Your task to perform on an android device: Search for vegetarian restaurants on Maps Image 0: 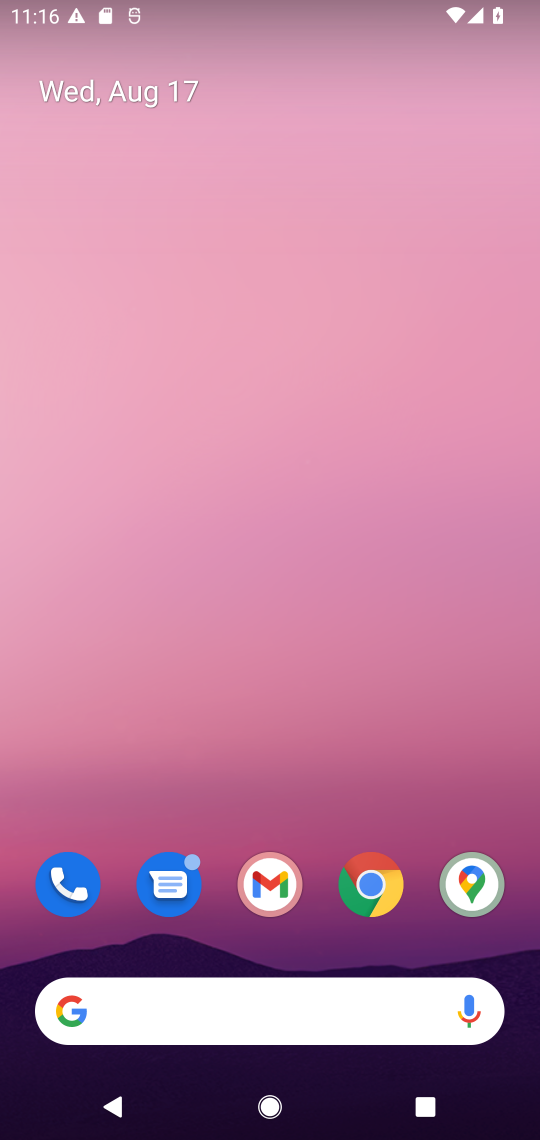
Step 0: press home button
Your task to perform on an android device: Search for vegetarian restaurants on Maps Image 1: 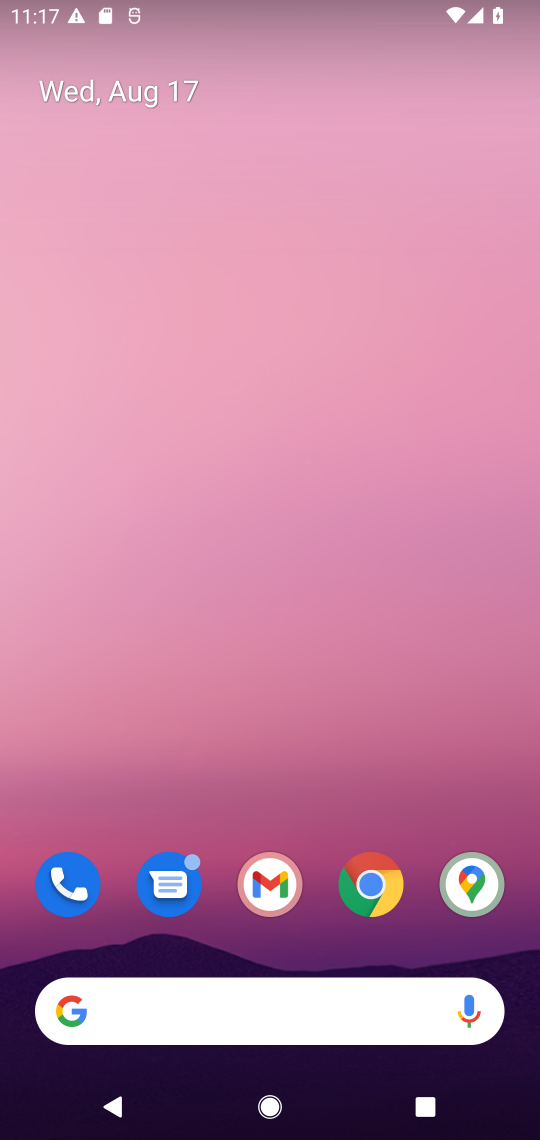
Step 1: click (486, 894)
Your task to perform on an android device: Search for vegetarian restaurants on Maps Image 2: 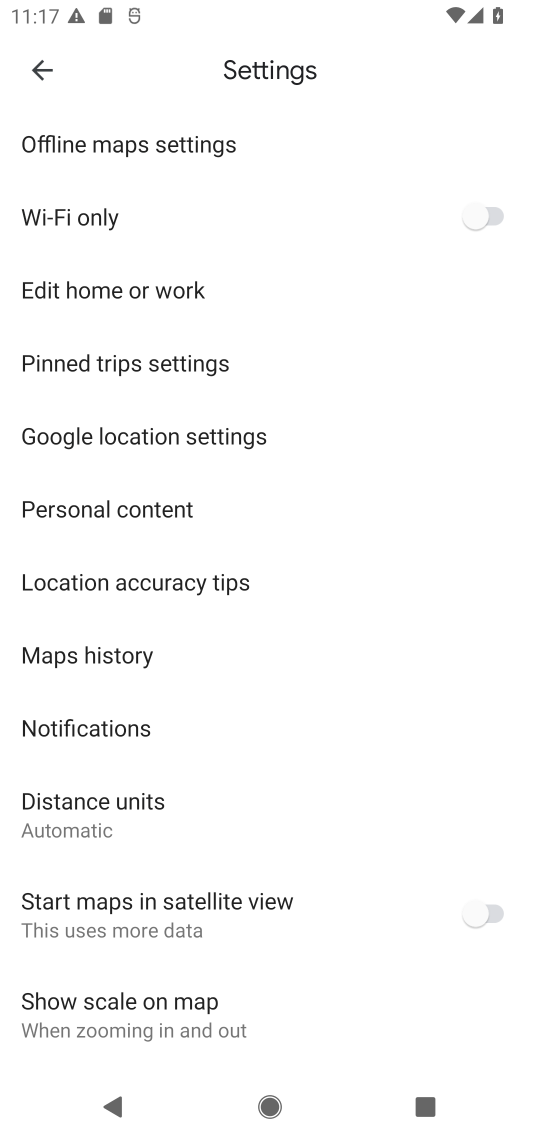
Step 2: press back button
Your task to perform on an android device: Search for vegetarian restaurants on Maps Image 3: 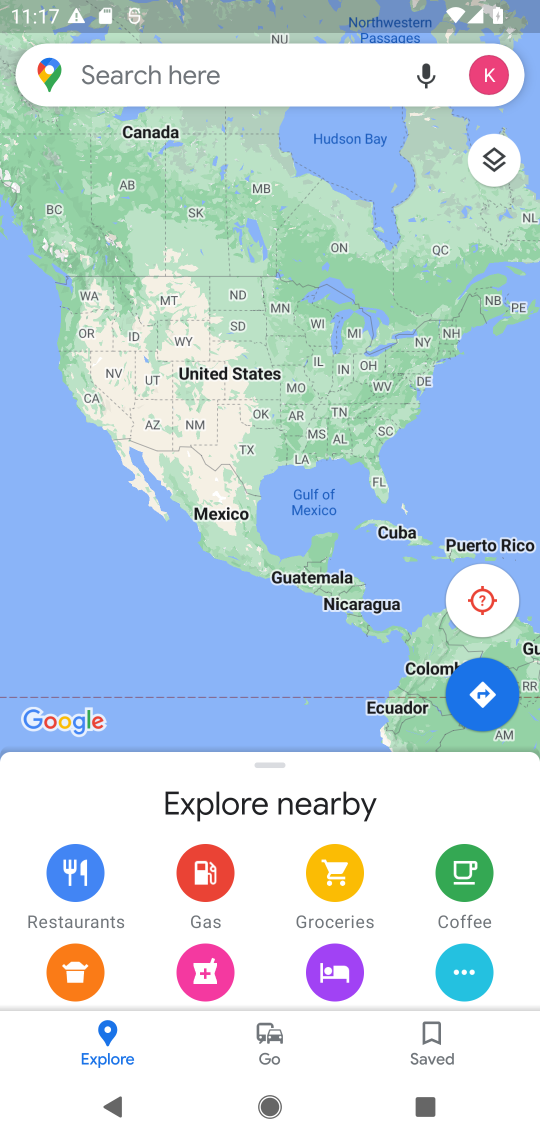
Step 3: click (86, 71)
Your task to perform on an android device: Search for vegetarian restaurants on Maps Image 4: 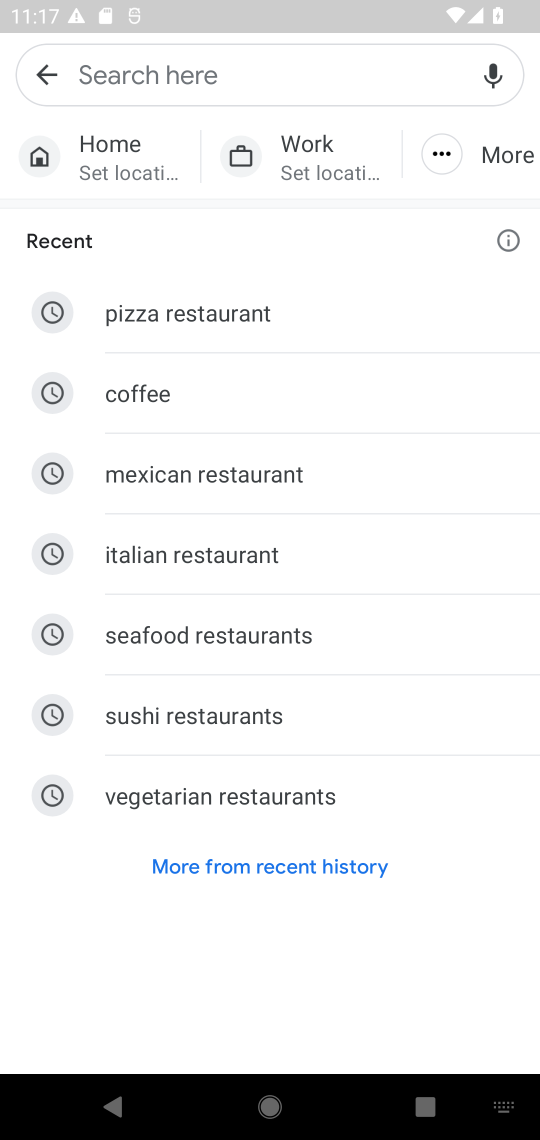
Step 4: click (217, 792)
Your task to perform on an android device: Search for vegetarian restaurants on Maps Image 5: 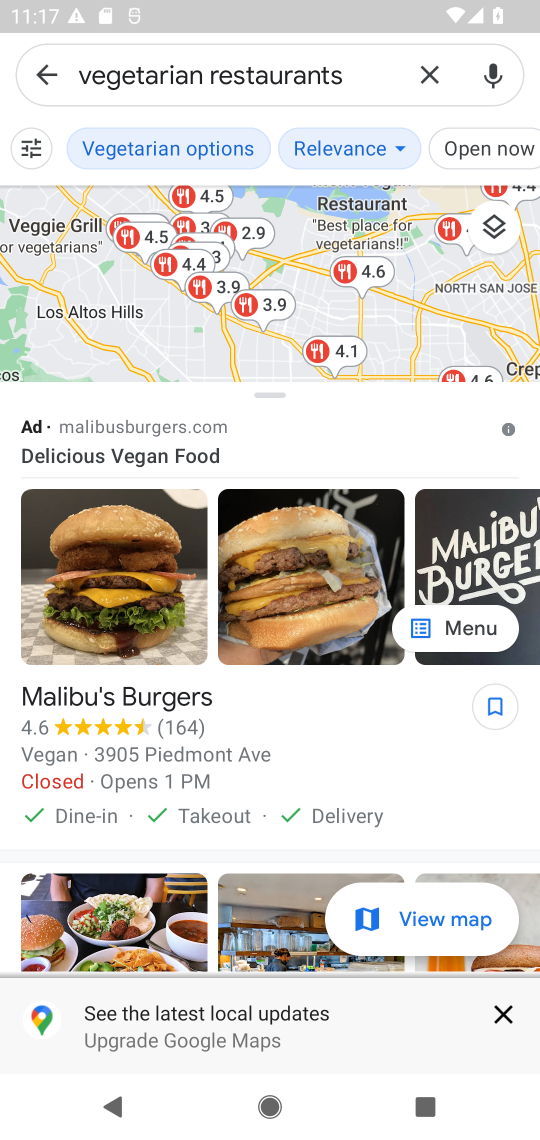
Step 5: task complete